Your task to perform on an android device: choose inbox layout in the gmail app Image 0: 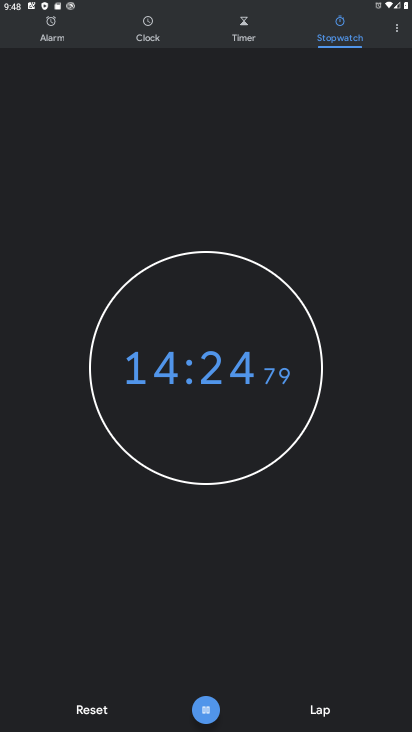
Step 0: press home button
Your task to perform on an android device: choose inbox layout in the gmail app Image 1: 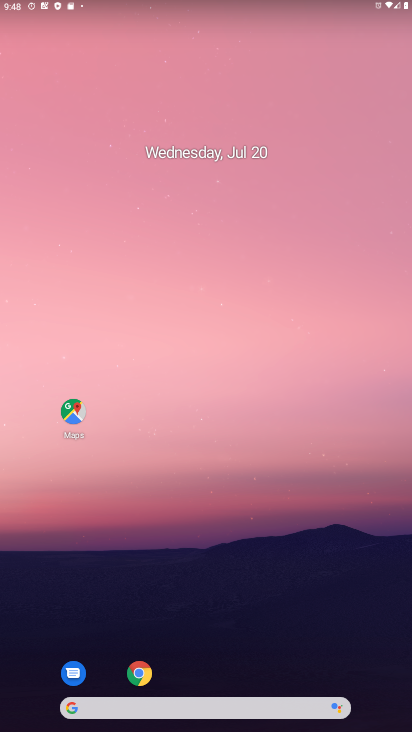
Step 1: drag from (244, 729) to (197, 126)
Your task to perform on an android device: choose inbox layout in the gmail app Image 2: 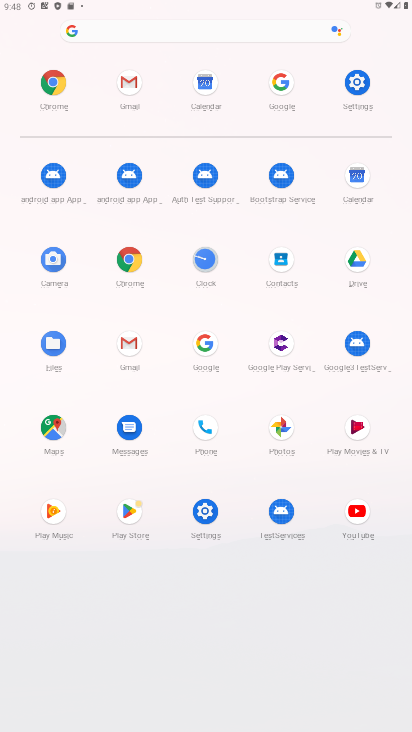
Step 2: click (125, 341)
Your task to perform on an android device: choose inbox layout in the gmail app Image 3: 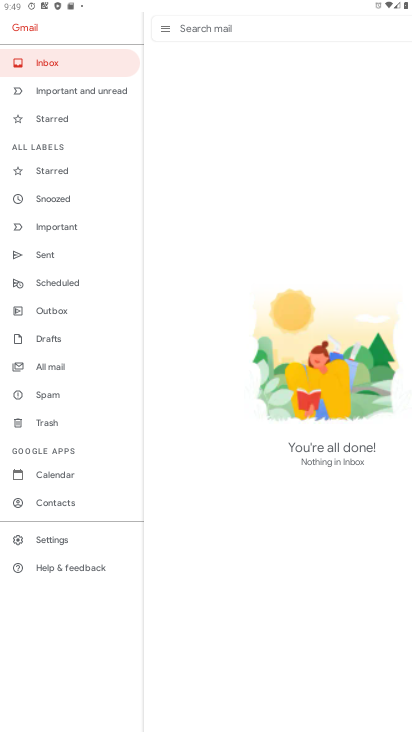
Step 3: click (57, 538)
Your task to perform on an android device: choose inbox layout in the gmail app Image 4: 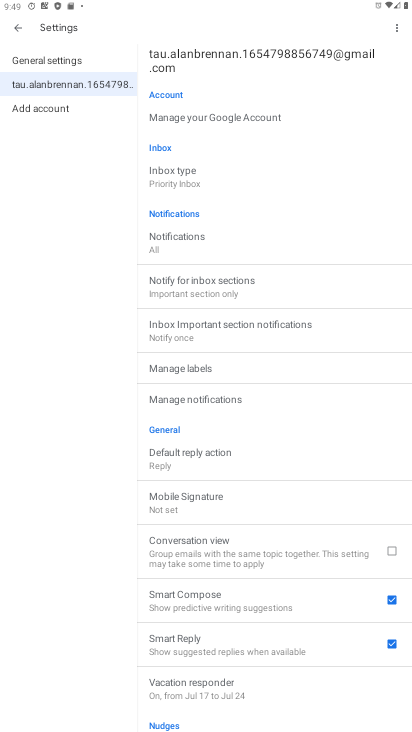
Step 4: click (168, 173)
Your task to perform on an android device: choose inbox layout in the gmail app Image 5: 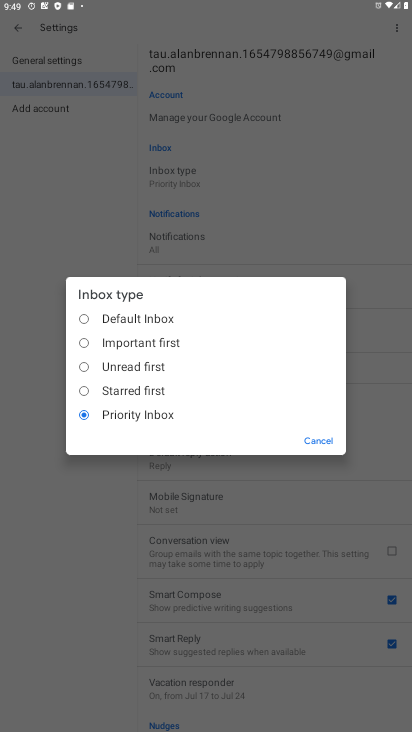
Step 5: click (87, 316)
Your task to perform on an android device: choose inbox layout in the gmail app Image 6: 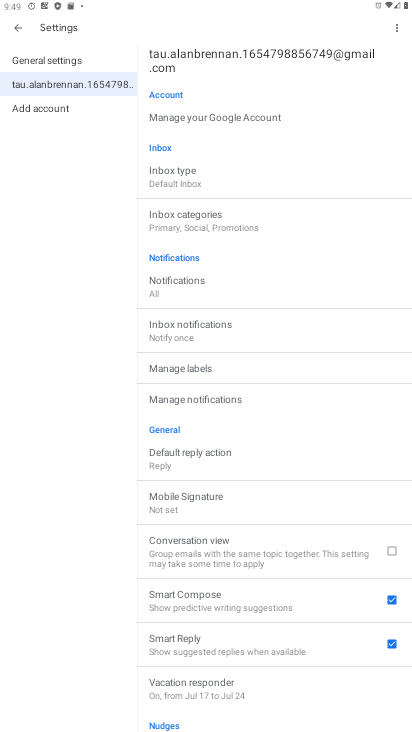
Step 6: task complete